Your task to perform on an android device: empty trash in google photos Image 0: 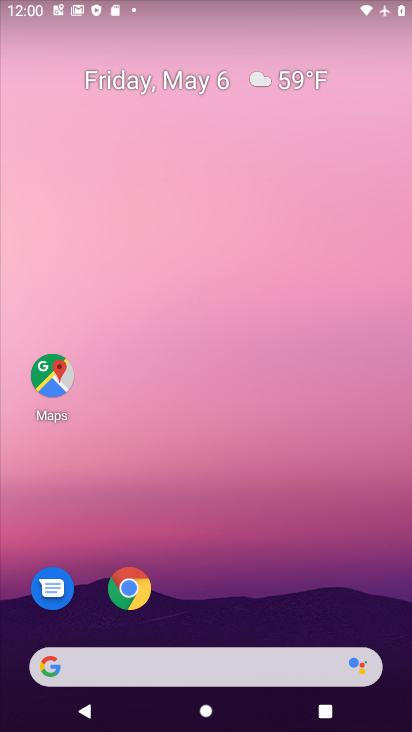
Step 0: drag from (184, 669) to (278, 127)
Your task to perform on an android device: empty trash in google photos Image 1: 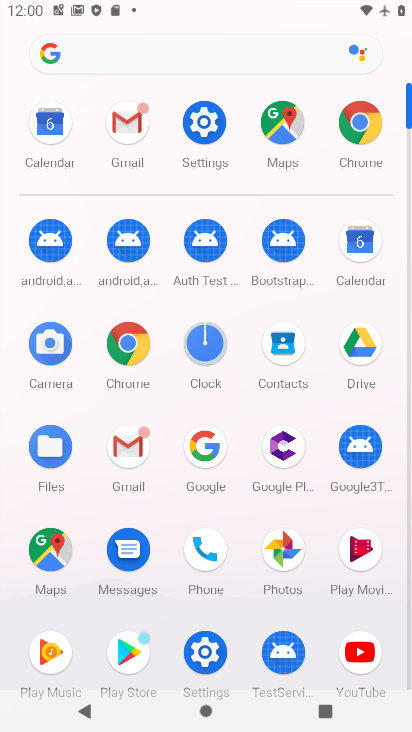
Step 1: click (284, 554)
Your task to perform on an android device: empty trash in google photos Image 2: 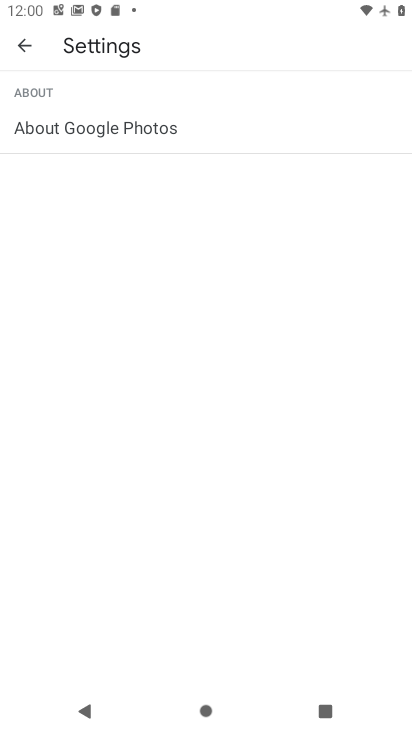
Step 2: click (22, 46)
Your task to perform on an android device: empty trash in google photos Image 3: 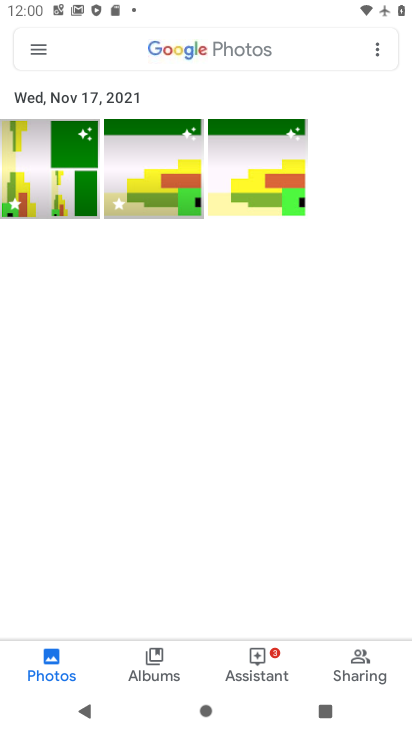
Step 3: click (37, 55)
Your task to perform on an android device: empty trash in google photos Image 4: 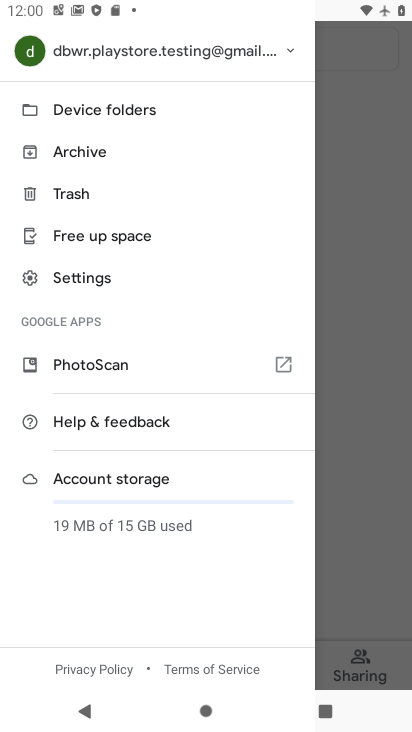
Step 4: click (72, 191)
Your task to perform on an android device: empty trash in google photos Image 5: 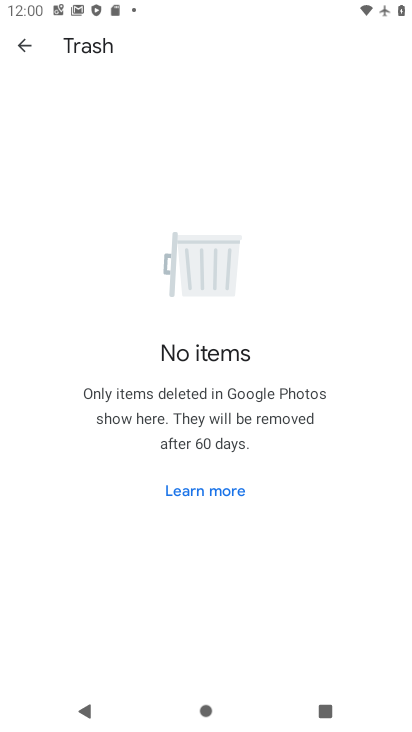
Step 5: task complete